Your task to perform on an android device: What is the news today? Image 0: 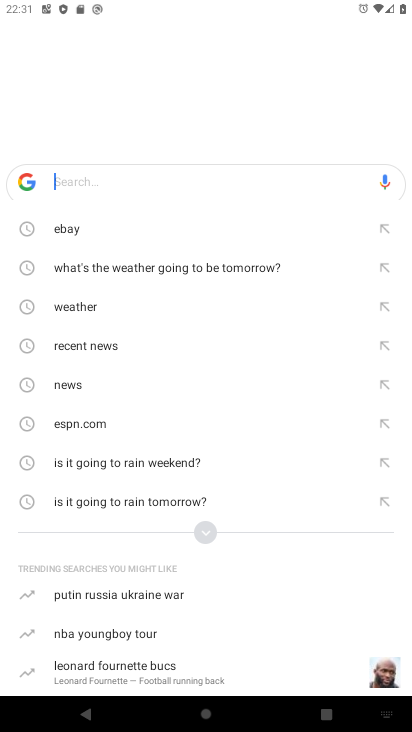
Step 0: task complete